Your task to perform on an android device: delete a single message in the gmail app Image 0: 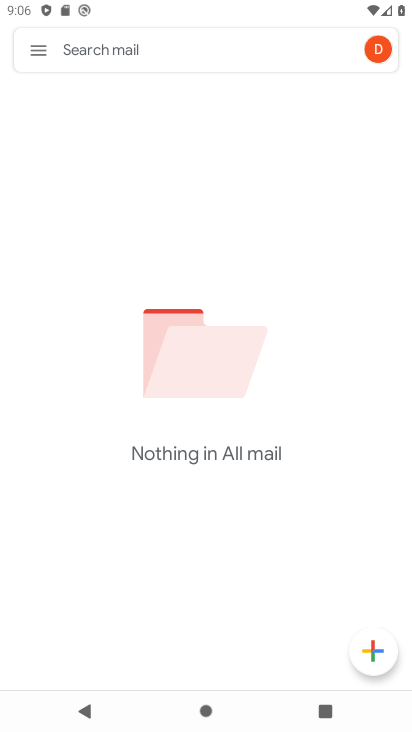
Step 0: press home button
Your task to perform on an android device: delete a single message in the gmail app Image 1: 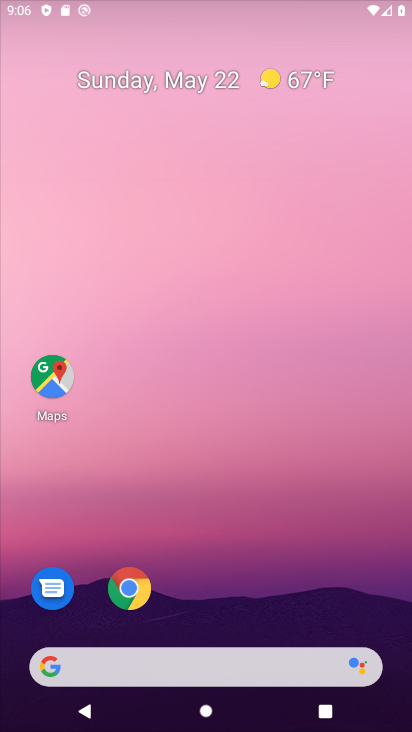
Step 1: drag from (197, 623) to (199, 224)
Your task to perform on an android device: delete a single message in the gmail app Image 2: 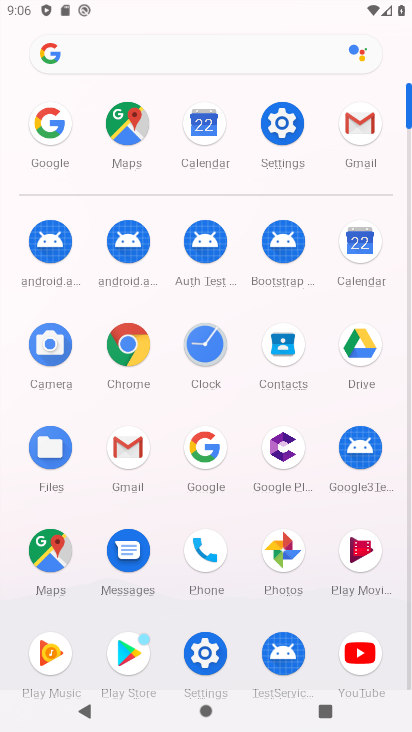
Step 2: click (345, 129)
Your task to perform on an android device: delete a single message in the gmail app Image 3: 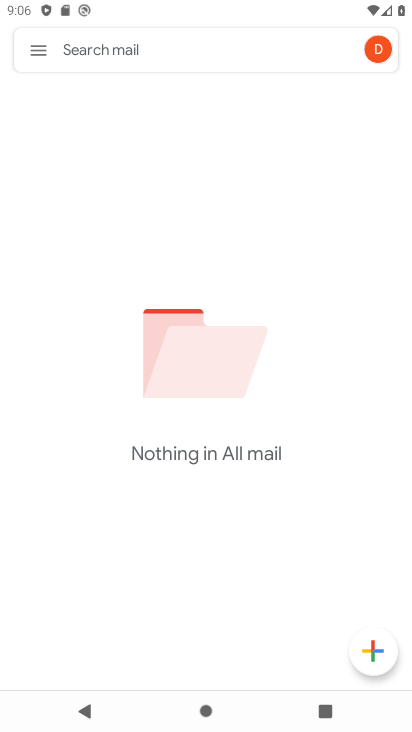
Step 3: click (32, 61)
Your task to perform on an android device: delete a single message in the gmail app Image 4: 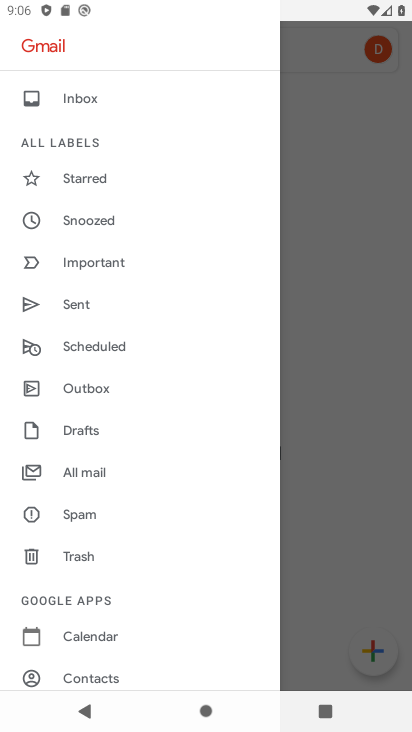
Step 4: click (129, 475)
Your task to perform on an android device: delete a single message in the gmail app Image 5: 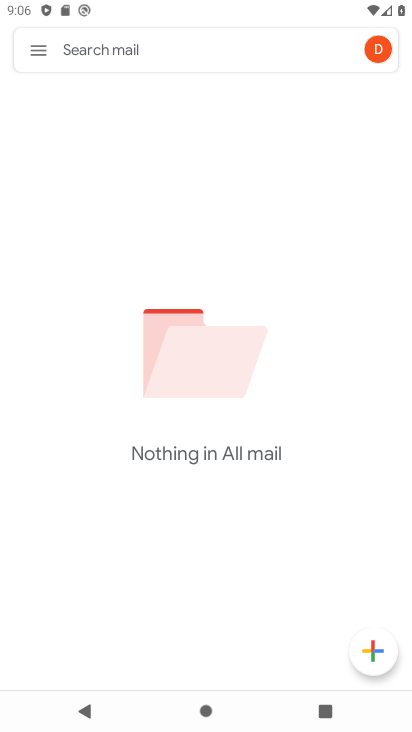
Step 5: task complete